Your task to perform on an android device: Open Youtube and go to the subscriptions tab Image 0: 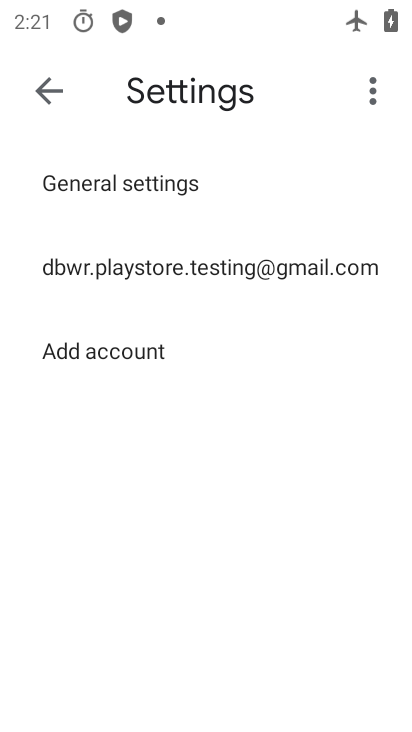
Step 0: press home button
Your task to perform on an android device: Open Youtube and go to the subscriptions tab Image 1: 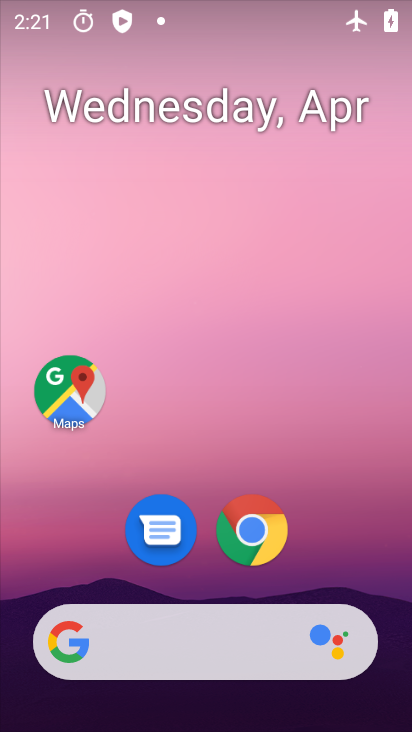
Step 1: drag from (351, 550) to (316, 173)
Your task to perform on an android device: Open Youtube and go to the subscriptions tab Image 2: 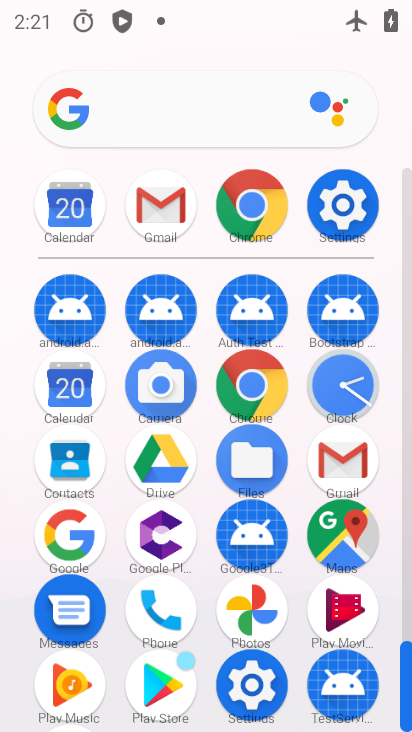
Step 2: drag from (290, 647) to (281, 260)
Your task to perform on an android device: Open Youtube and go to the subscriptions tab Image 3: 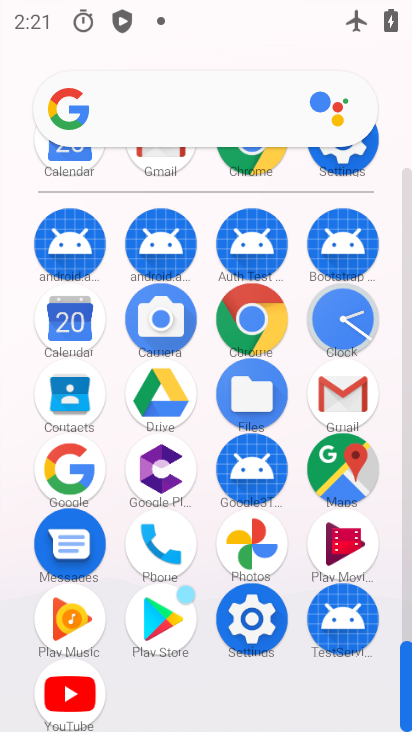
Step 3: click (78, 668)
Your task to perform on an android device: Open Youtube and go to the subscriptions tab Image 4: 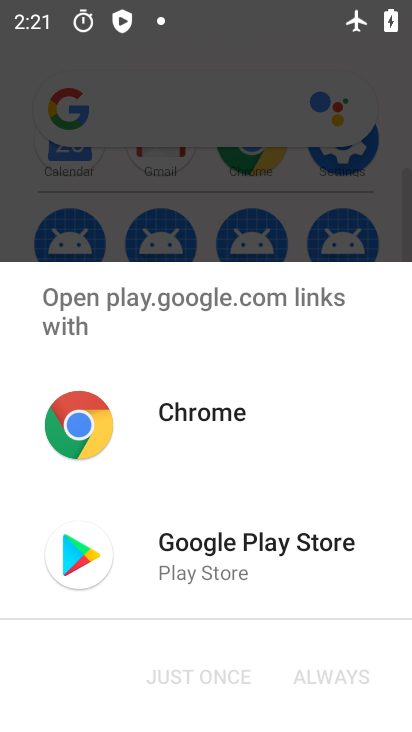
Step 4: click (345, 194)
Your task to perform on an android device: Open Youtube and go to the subscriptions tab Image 5: 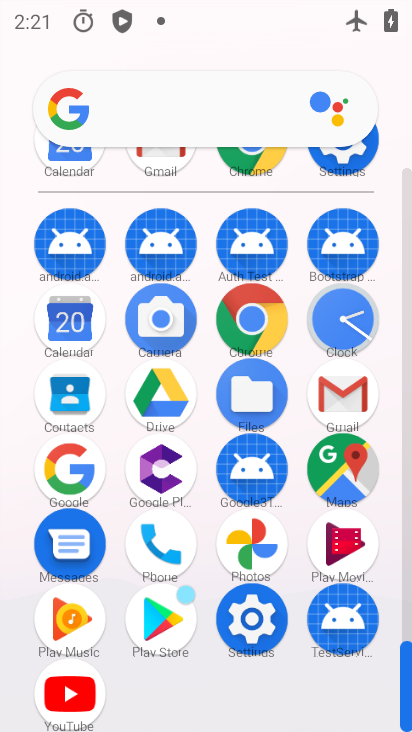
Step 5: click (80, 680)
Your task to perform on an android device: Open Youtube and go to the subscriptions tab Image 6: 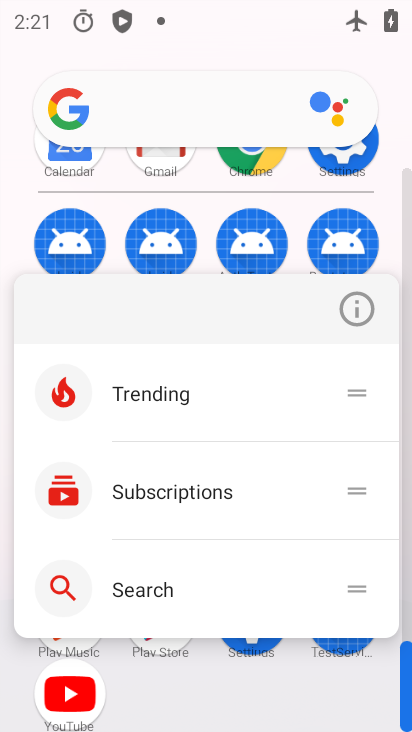
Step 6: click (80, 680)
Your task to perform on an android device: Open Youtube and go to the subscriptions tab Image 7: 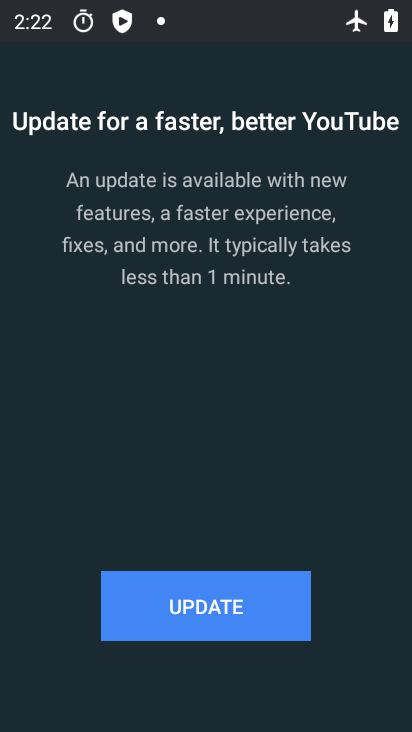
Step 7: task complete